Your task to perform on an android device: turn pop-ups on in chrome Image 0: 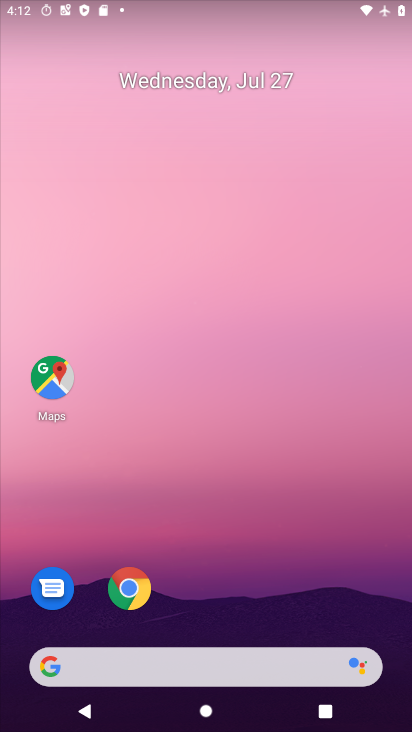
Step 0: press home button
Your task to perform on an android device: turn pop-ups on in chrome Image 1: 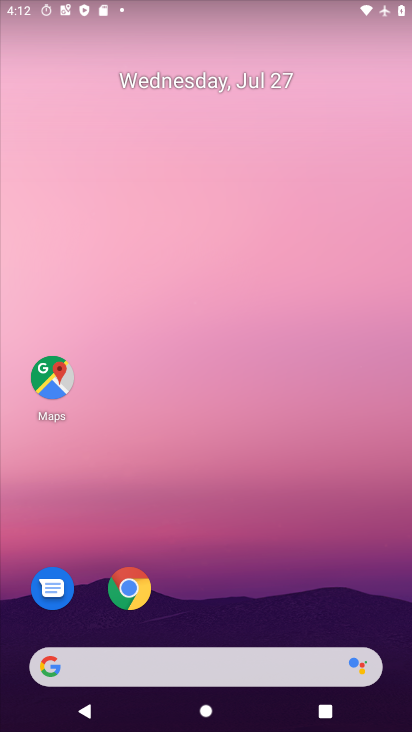
Step 1: drag from (245, 615) to (189, 145)
Your task to perform on an android device: turn pop-ups on in chrome Image 2: 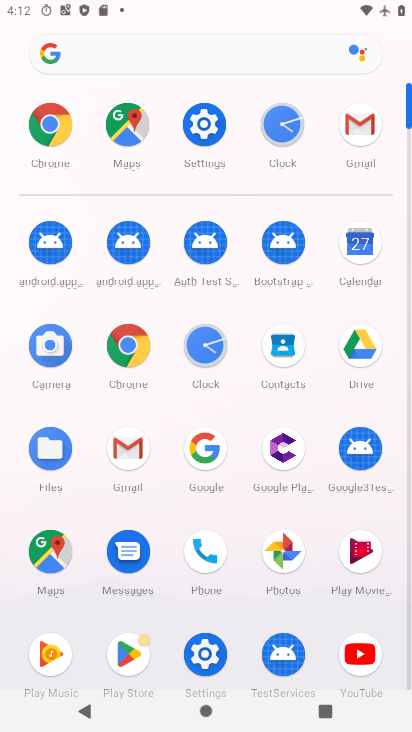
Step 2: click (50, 131)
Your task to perform on an android device: turn pop-ups on in chrome Image 3: 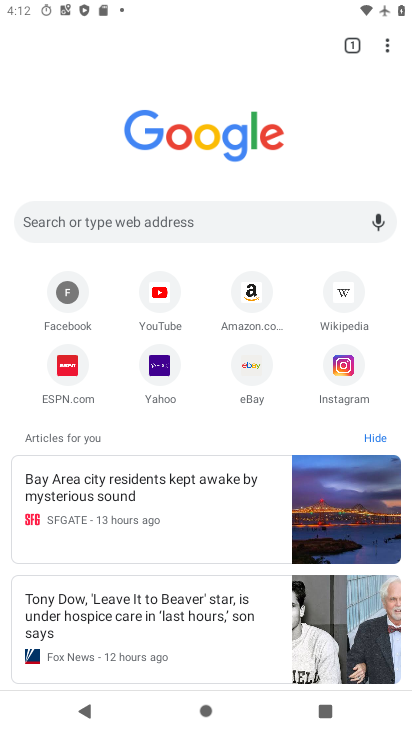
Step 3: drag from (385, 47) to (221, 440)
Your task to perform on an android device: turn pop-ups on in chrome Image 4: 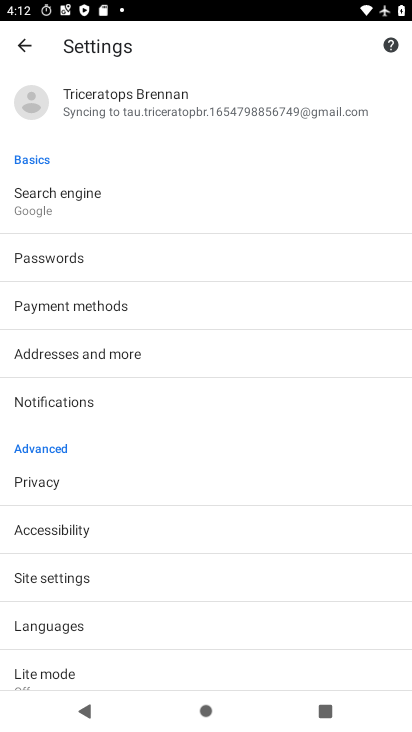
Step 4: click (40, 583)
Your task to perform on an android device: turn pop-ups on in chrome Image 5: 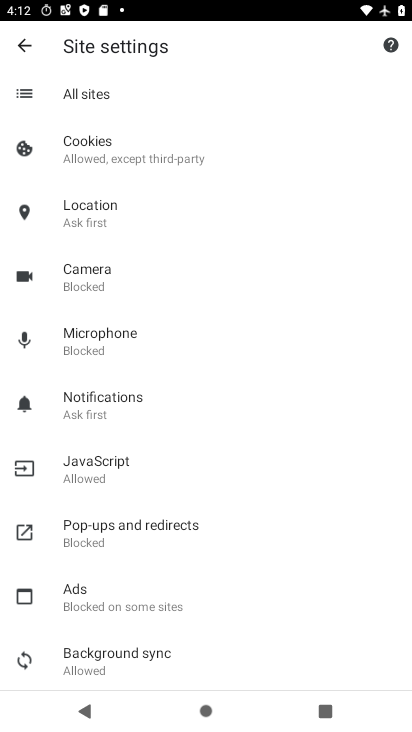
Step 5: click (93, 529)
Your task to perform on an android device: turn pop-ups on in chrome Image 6: 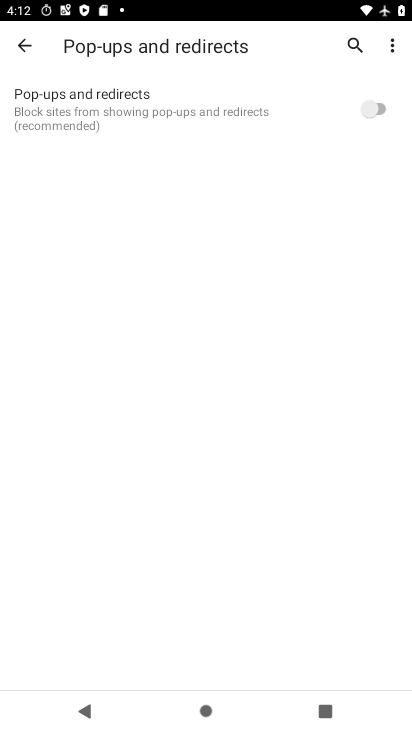
Step 6: click (371, 108)
Your task to perform on an android device: turn pop-ups on in chrome Image 7: 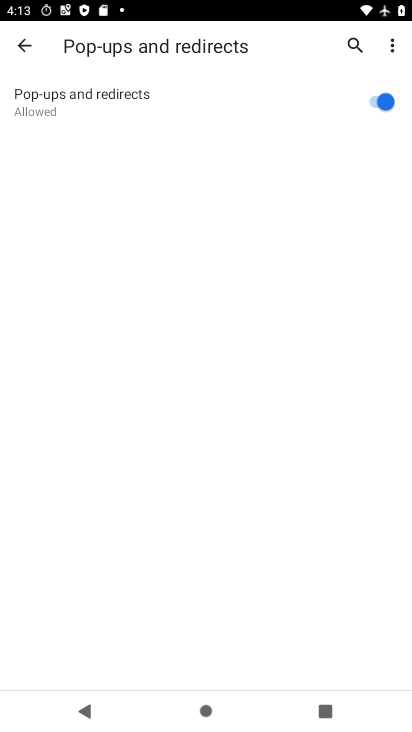
Step 7: task complete